Your task to perform on an android device: Go to Yahoo.com Image 0: 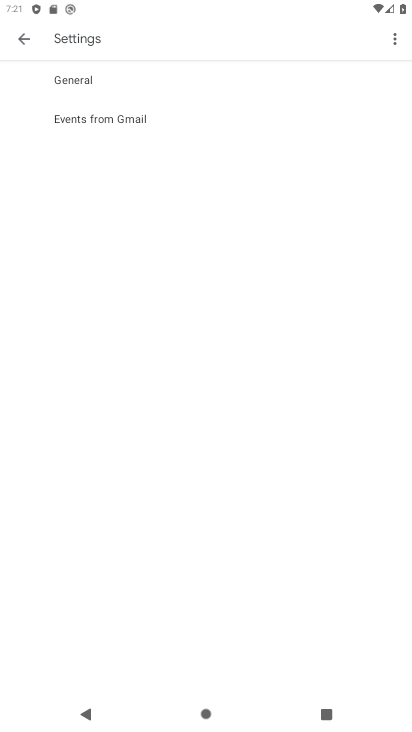
Step 0: press home button
Your task to perform on an android device: Go to Yahoo.com Image 1: 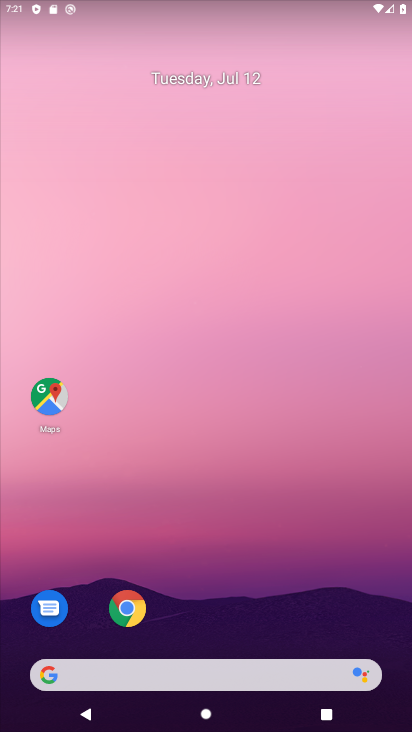
Step 1: click (127, 608)
Your task to perform on an android device: Go to Yahoo.com Image 2: 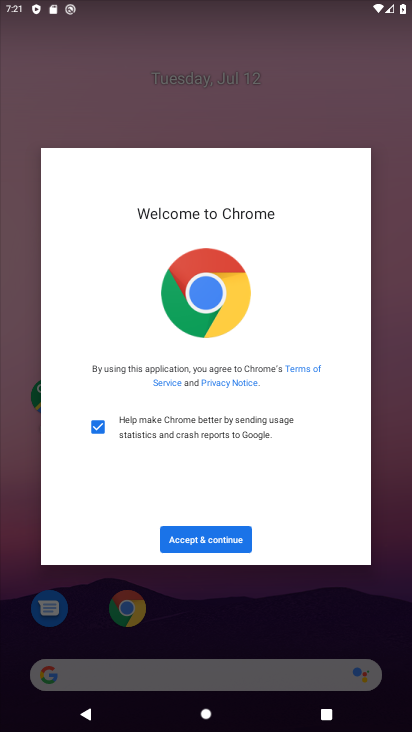
Step 2: click (174, 538)
Your task to perform on an android device: Go to Yahoo.com Image 3: 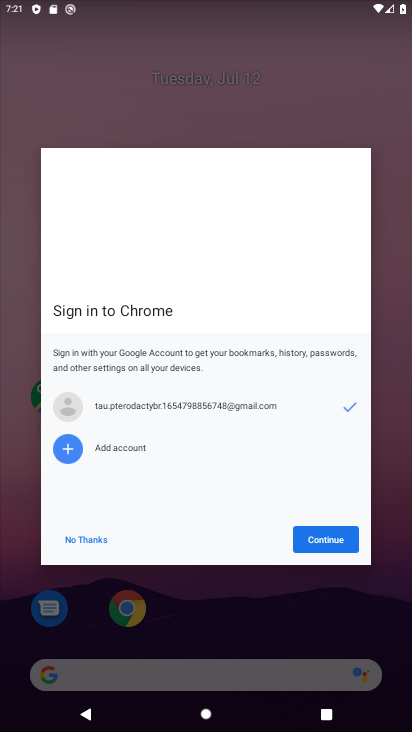
Step 3: click (330, 538)
Your task to perform on an android device: Go to Yahoo.com Image 4: 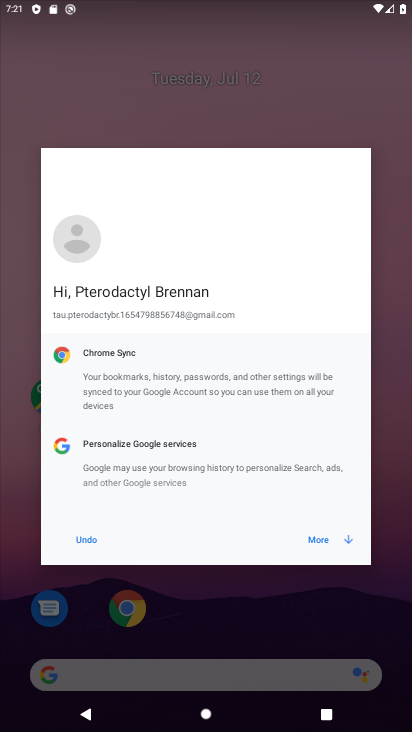
Step 4: click (330, 538)
Your task to perform on an android device: Go to Yahoo.com Image 5: 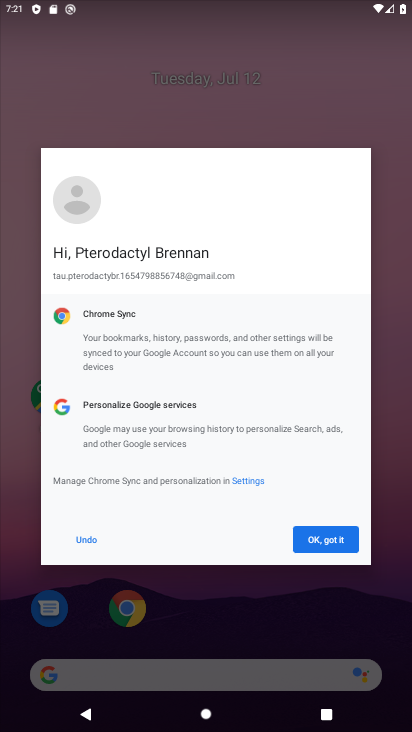
Step 5: click (330, 538)
Your task to perform on an android device: Go to Yahoo.com Image 6: 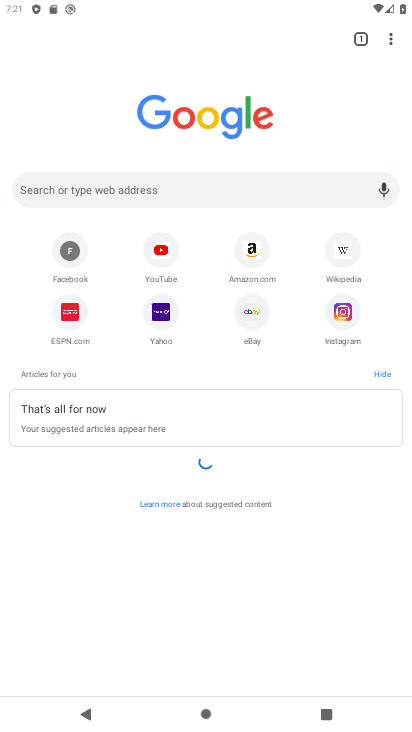
Step 6: click (163, 331)
Your task to perform on an android device: Go to Yahoo.com Image 7: 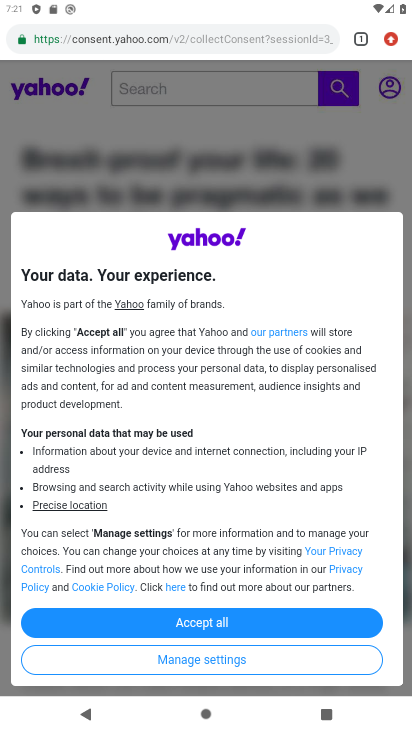
Step 7: click (187, 630)
Your task to perform on an android device: Go to Yahoo.com Image 8: 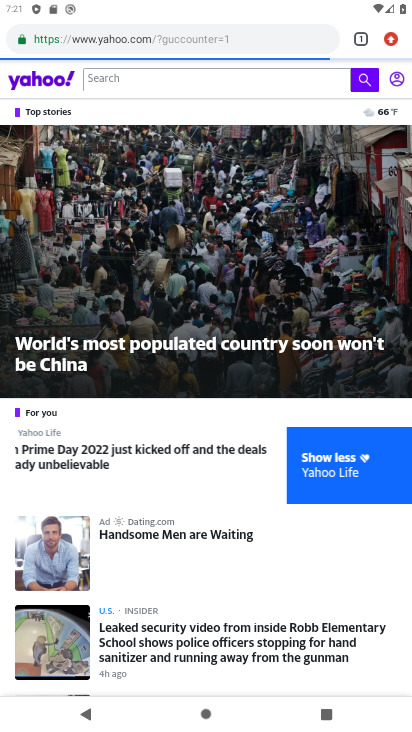
Step 8: task complete